Your task to perform on an android device: Show the shopping cart on target. Add acer predator to the cart on target Image 0: 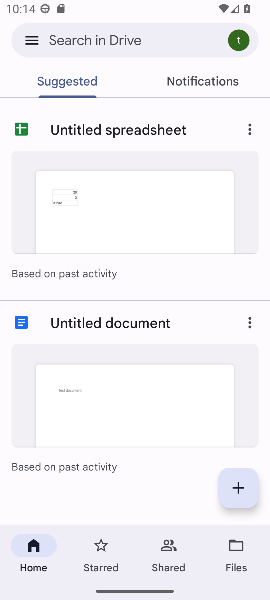
Step 0: press home button
Your task to perform on an android device: Show the shopping cart on target. Add acer predator to the cart on target Image 1: 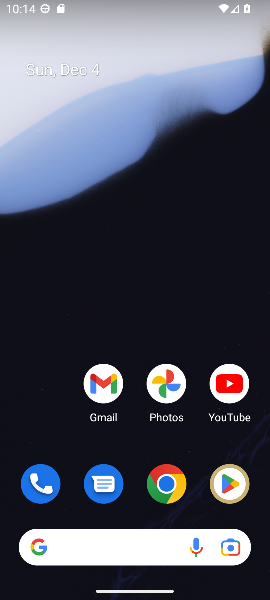
Step 1: click (170, 487)
Your task to perform on an android device: Show the shopping cart on target. Add acer predator to the cart on target Image 2: 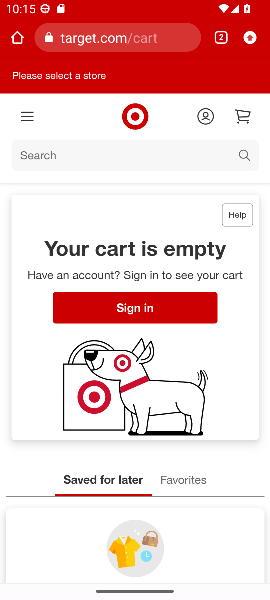
Step 2: click (246, 115)
Your task to perform on an android device: Show the shopping cart on target. Add acer predator to the cart on target Image 3: 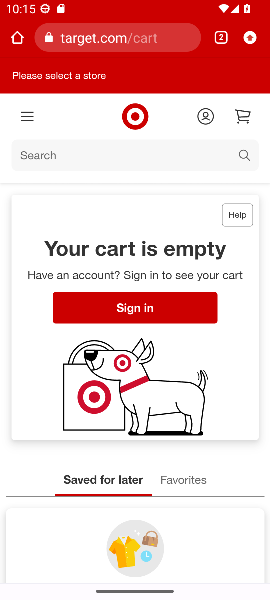
Step 3: click (50, 157)
Your task to perform on an android device: Show the shopping cart on target. Add acer predator to the cart on target Image 4: 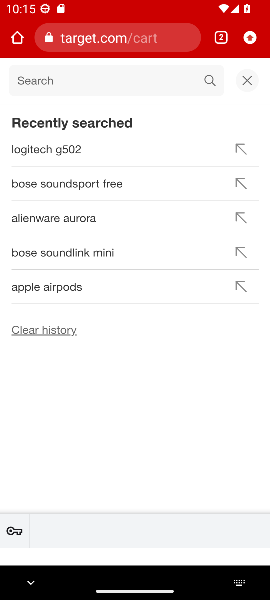
Step 4: type "acer predator"
Your task to perform on an android device: Show the shopping cart on target. Add acer predator to the cart on target Image 5: 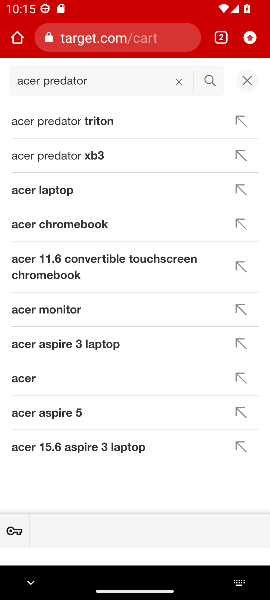
Step 5: click (210, 80)
Your task to perform on an android device: Show the shopping cart on target. Add acer predator to the cart on target Image 6: 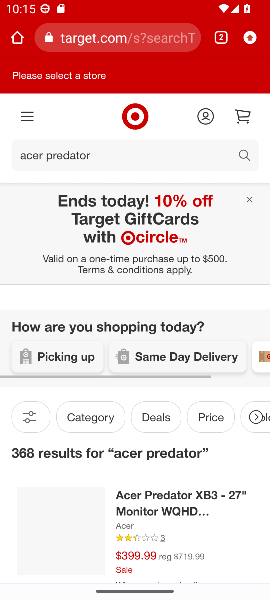
Step 6: drag from (182, 516) to (187, 275)
Your task to perform on an android device: Show the shopping cart on target. Add acer predator to the cart on target Image 7: 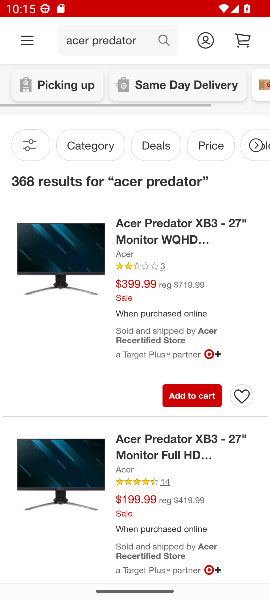
Step 7: click (188, 398)
Your task to perform on an android device: Show the shopping cart on target. Add acer predator to the cart on target Image 8: 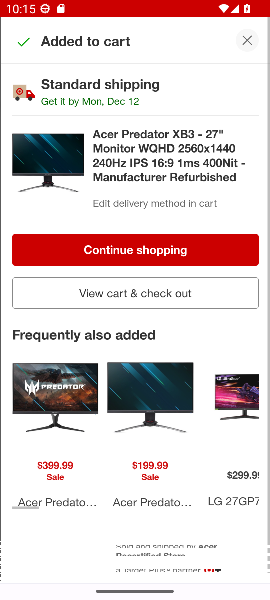
Step 8: task complete